Your task to perform on an android device: turn off sleep mode Image 0: 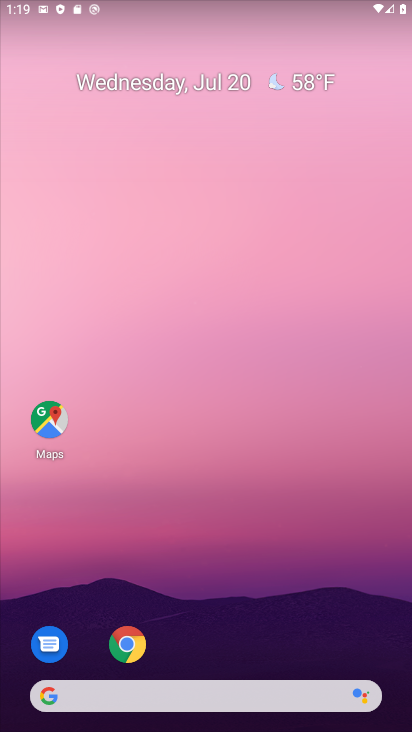
Step 0: drag from (183, 282) to (191, 125)
Your task to perform on an android device: turn off sleep mode Image 1: 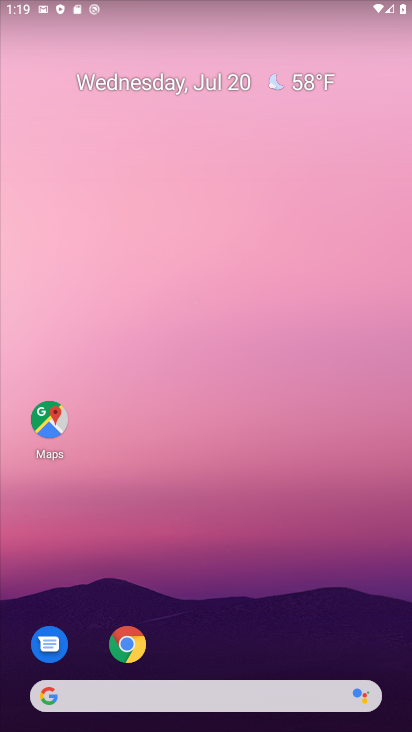
Step 1: drag from (207, 304) to (217, 46)
Your task to perform on an android device: turn off sleep mode Image 2: 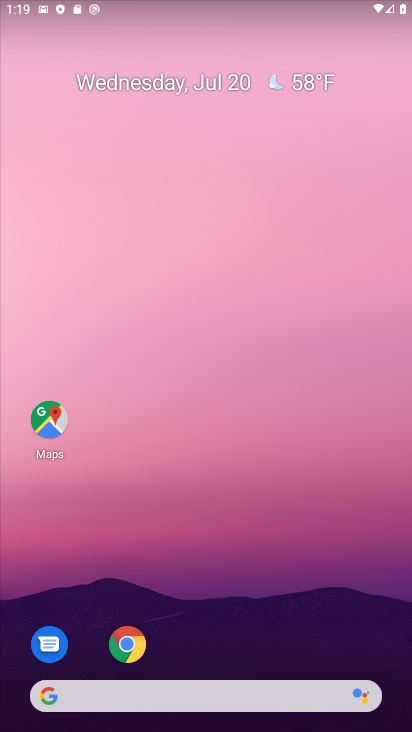
Step 2: drag from (238, 641) to (241, 14)
Your task to perform on an android device: turn off sleep mode Image 3: 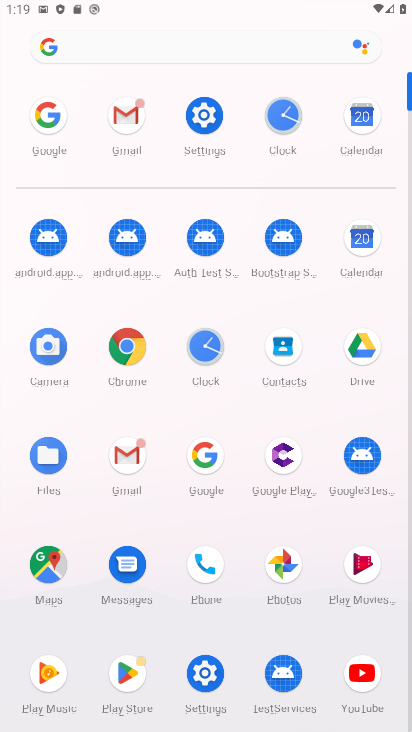
Step 3: click (205, 115)
Your task to perform on an android device: turn off sleep mode Image 4: 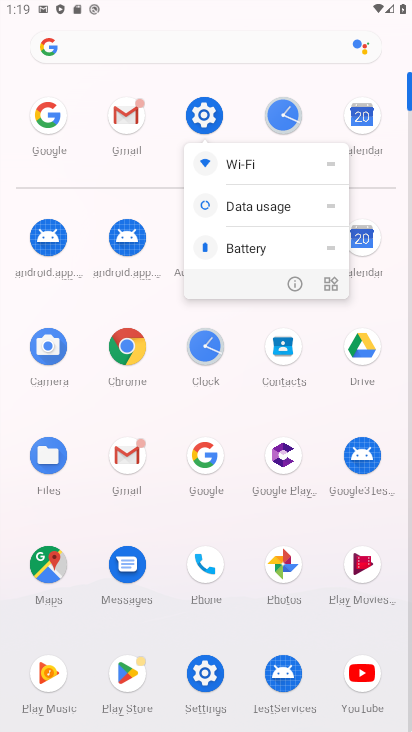
Step 4: click (200, 116)
Your task to perform on an android device: turn off sleep mode Image 5: 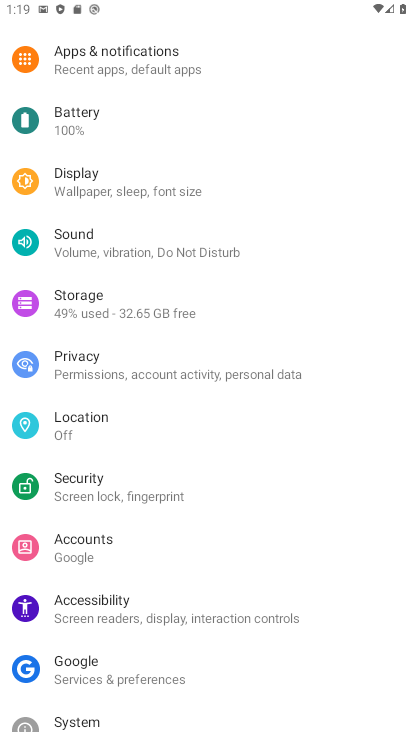
Step 5: click (128, 191)
Your task to perform on an android device: turn off sleep mode Image 6: 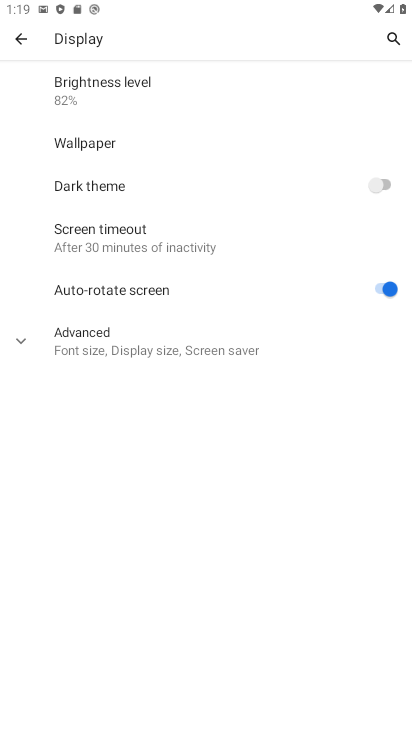
Step 6: click (116, 229)
Your task to perform on an android device: turn off sleep mode Image 7: 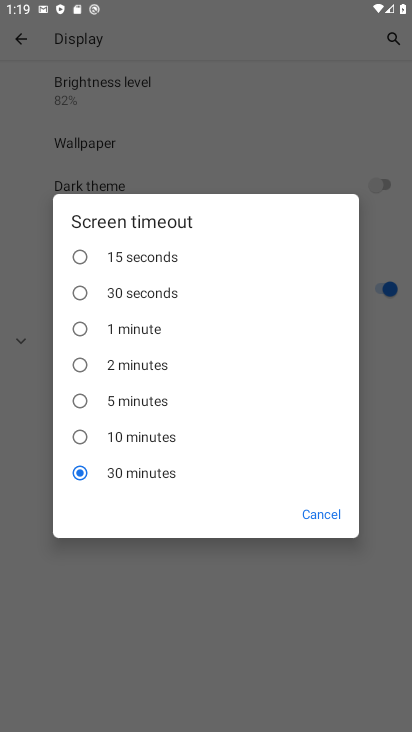
Step 7: task complete